Your task to perform on an android device: Open Amazon Image 0: 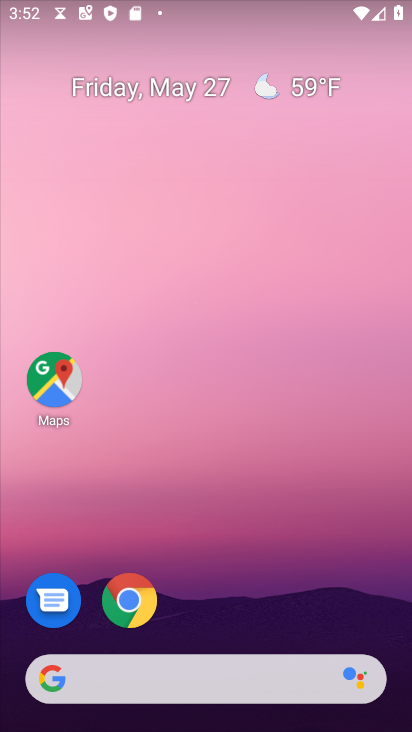
Step 0: click (129, 600)
Your task to perform on an android device: Open Amazon Image 1: 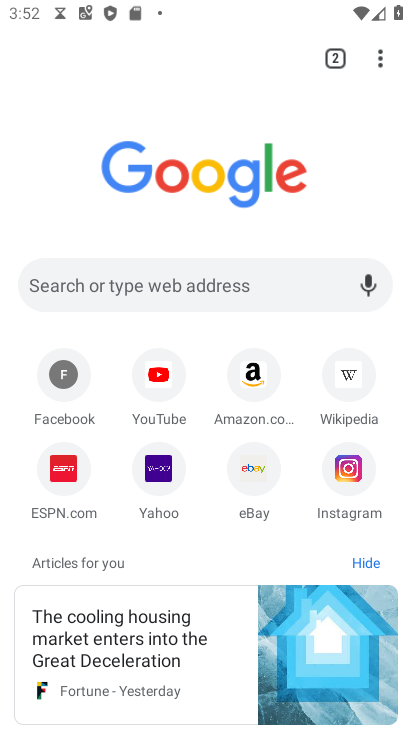
Step 1: click (224, 281)
Your task to perform on an android device: Open Amazon Image 2: 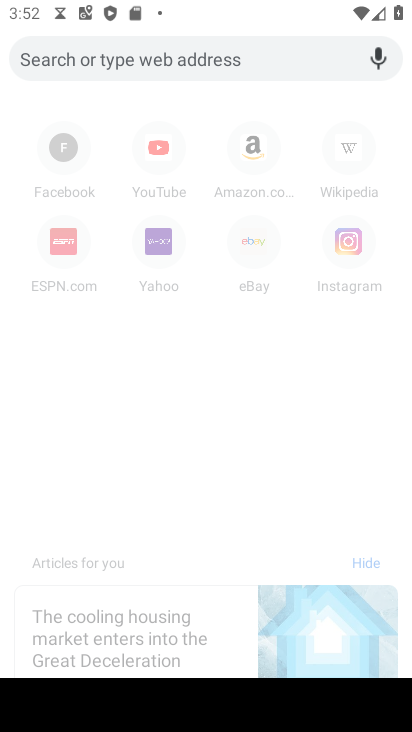
Step 2: type "Amazon"
Your task to perform on an android device: Open Amazon Image 3: 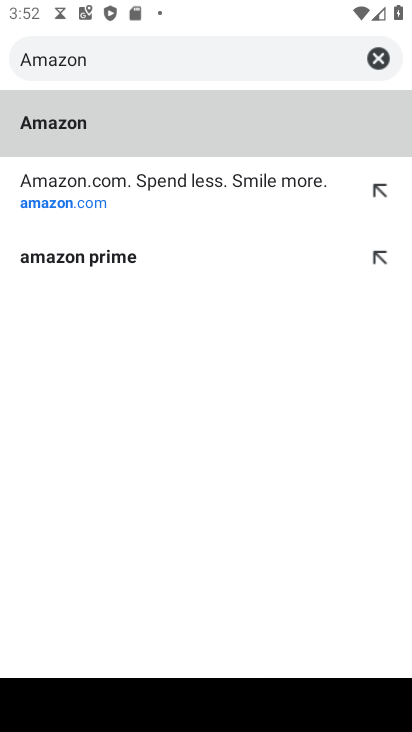
Step 3: click (258, 120)
Your task to perform on an android device: Open Amazon Image 4: 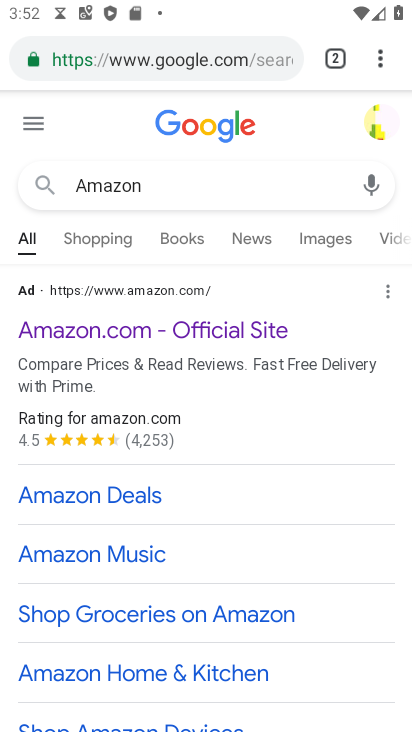
Step 4: click (91, 319)
Your task to perform on an android device: Open Amazon Image 5: 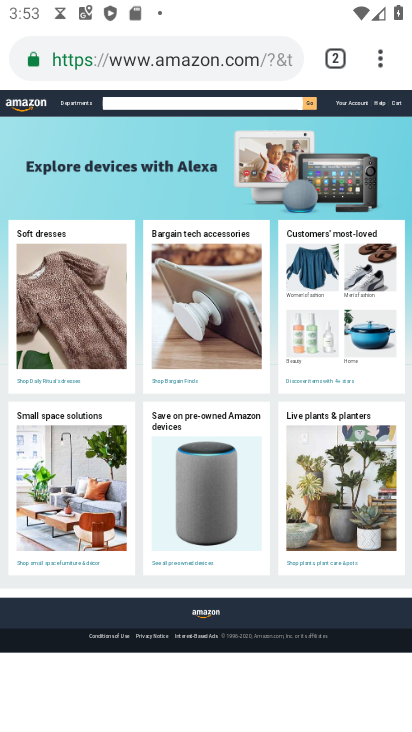
Step 5: task complete